Your task to perform on an android device: check storage Image 0: 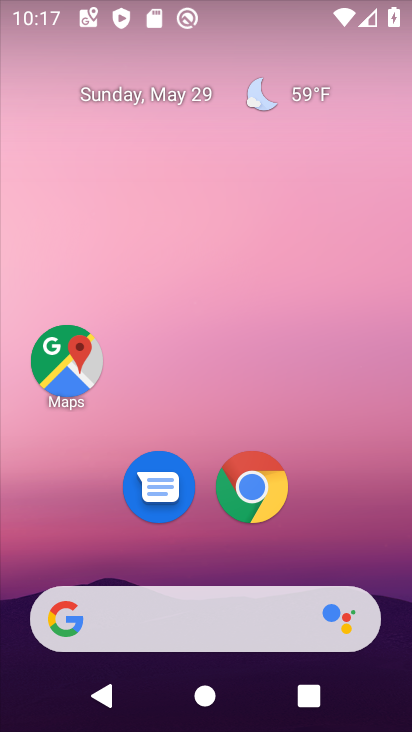
Step 0: drag from (397, 669) to (327, 169)
Your task to perform on an android device: check storage Image 1: 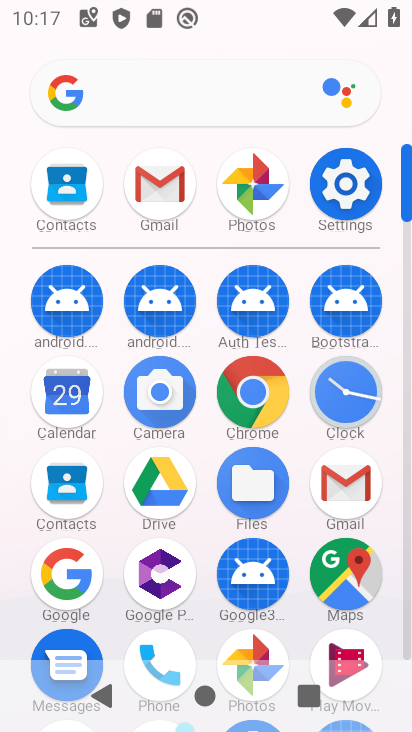
Step 1: click (327, 195)
Your task to perform on an android device: check storage Image 2: 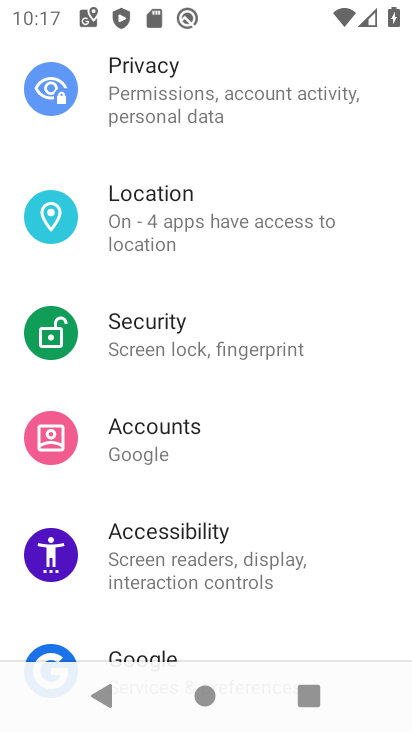
Step 2: drag from (205, 107) to (247, 424)
Your task to perform on an android device: check storage Image 3: 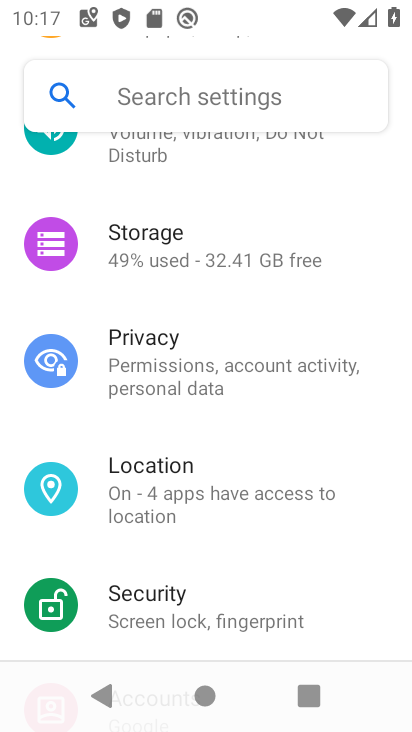
Step 3: click (168, 235)
Your task to perform on an android device: check storage Image 4: 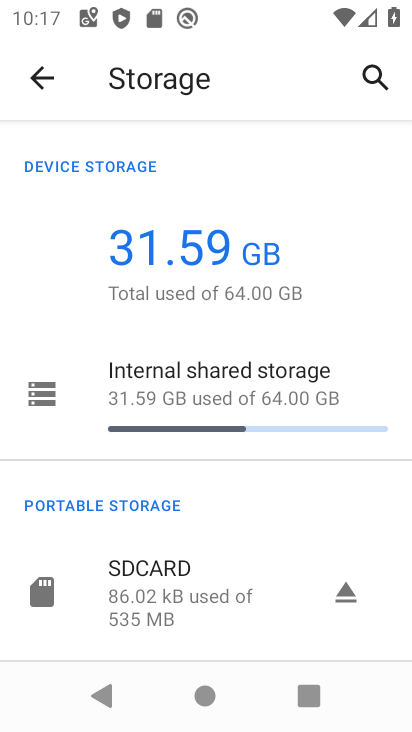
Step 4: task complete